Your task to perform on an android device: Go to Maps Image 0: 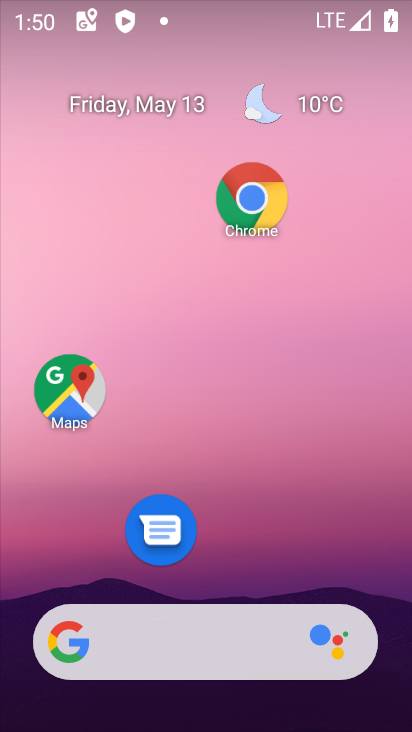
Step 0: click (74, 399)
Your task to perform on an android device: Go to Maps Image 1: 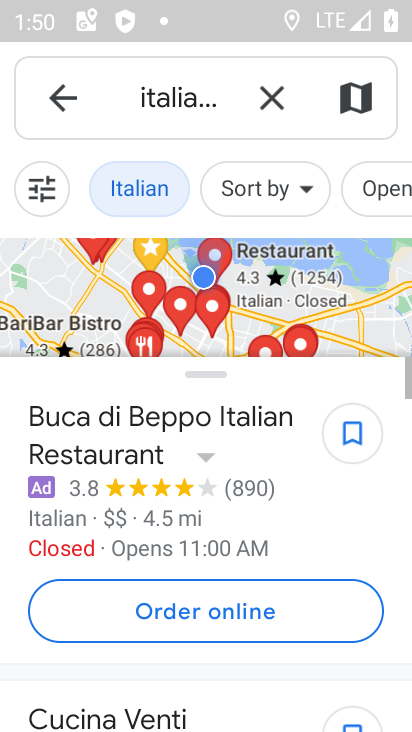
Step 1: task complete